Your task to perform on an android device: all mails in gmail Image 0: 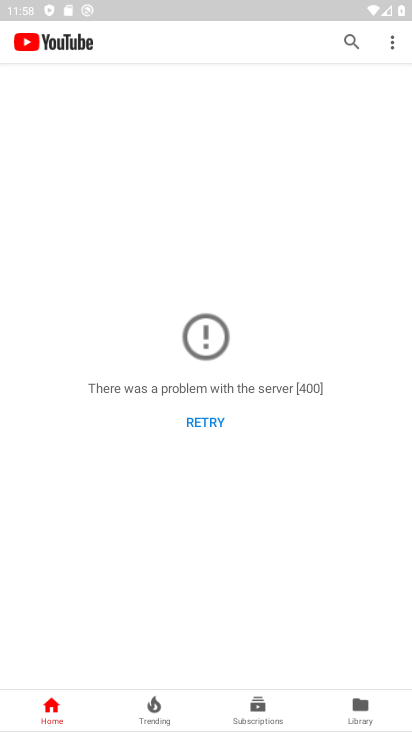
Step 0: press home button
Your task to perform on an android device: all mails in gmail Image 1: 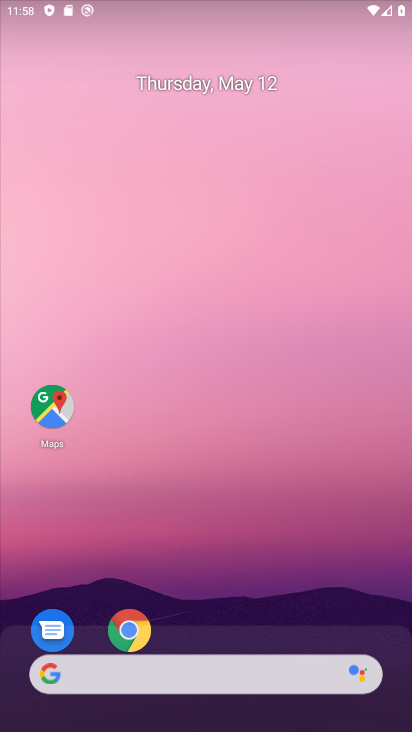
Step 1: drag from (320, 443) to (302, 163)
Your task to perform on an android device: all mails in gmail Image 2: 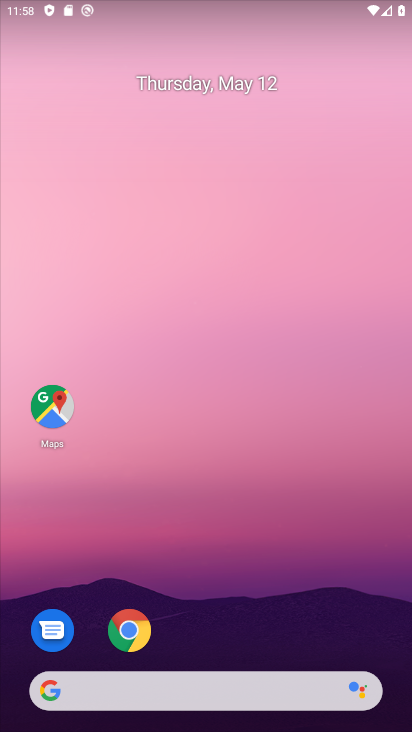
Step 2: drag from (353, 610) to (273, 92)
Your task to perform on an android device: all mails in gmail Image 3: 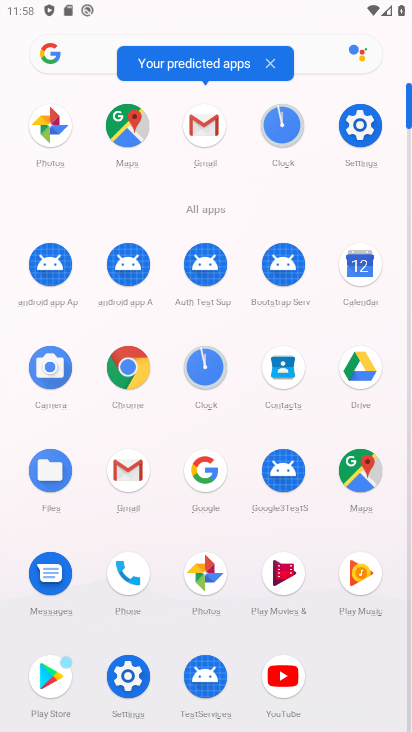
Step 3: click (130, 486)
Your task to perform on an android device: all mails in gmail Image 4: 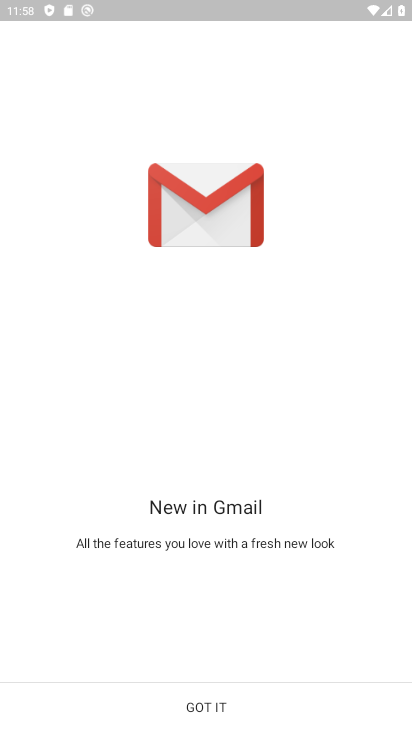
Step 4: click (206, 716)
Your task to perform on an android device: all mails in gmail Image 5: 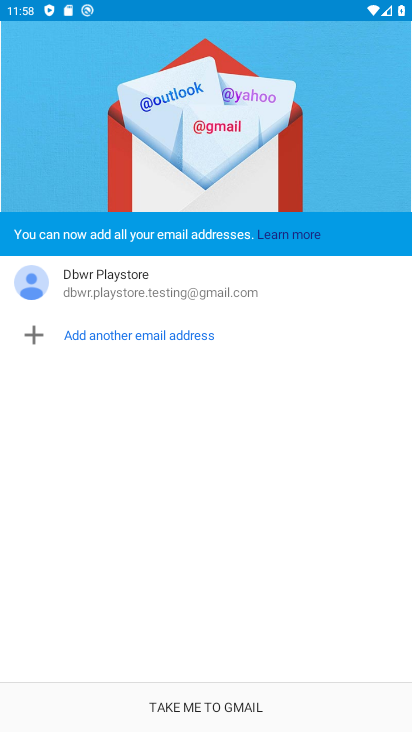
Step 5: click (223, 696)
Your task to perform on an android device: all mails in gmail Image 6: 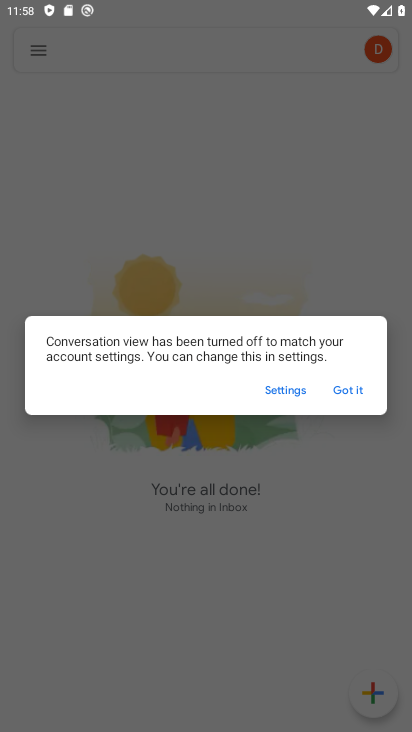
Step 6: click (339, 383)
Your task to perform on an android device: all mails in gmail Image 7: 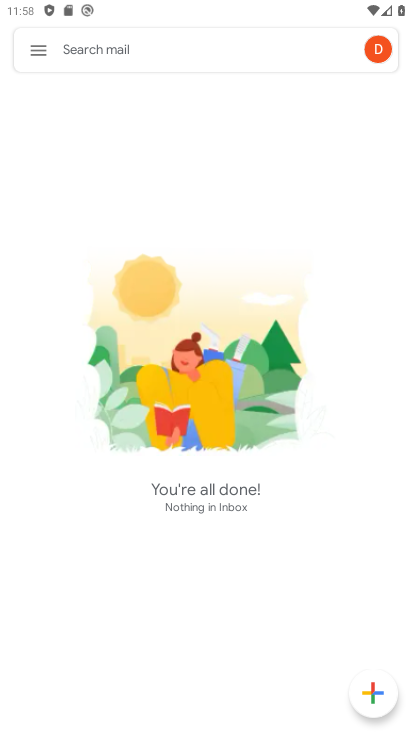
Step 7: task complete